Your task to perform on an android device: toggle pop-ups in chrome Image 0: 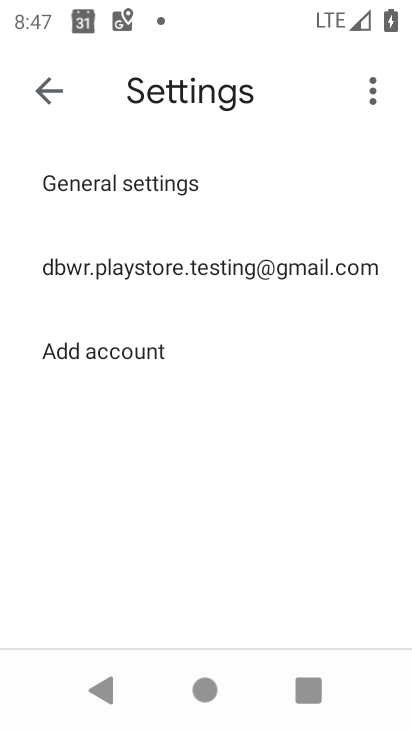
Step 0: press home button
Your task to perform on an android device: toggle pop-ups in chrome Image 1: 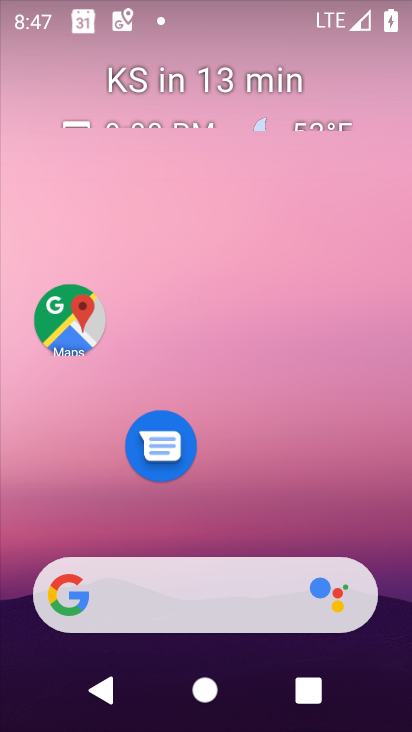
Step 1: drag from (184, 541) to (132, 7)
Your task to perform on an android device: toggle pop-ups in chrome Image 2: 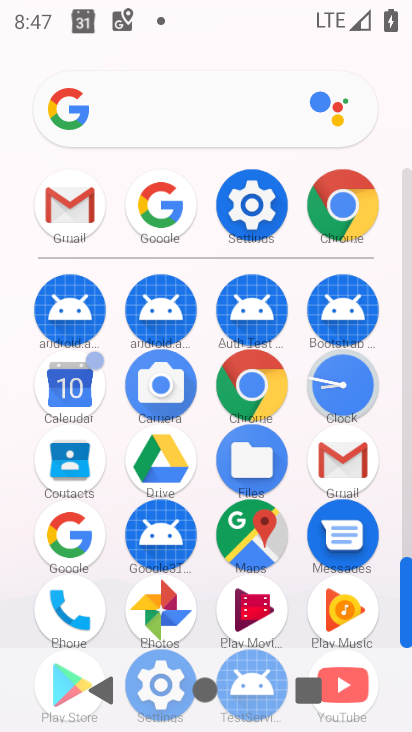
Step 2: click (236, 378)
Your task to perform on an android device: toggle pop-ups in chrome Image 3: 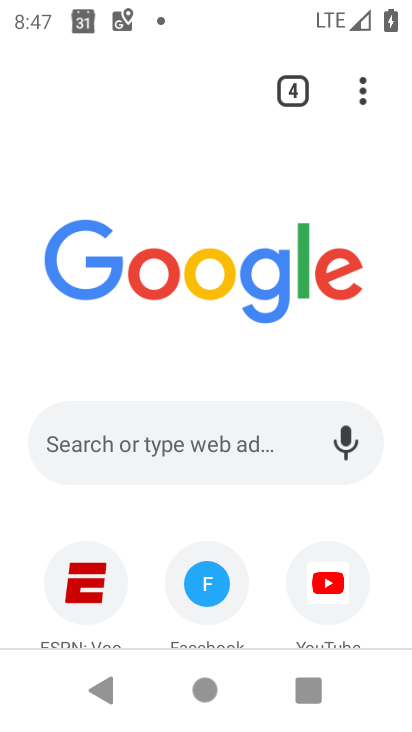
Step 3: click (355, 112)
Your task to perform on an android device: toggle pop-ups in chrome Image 4: 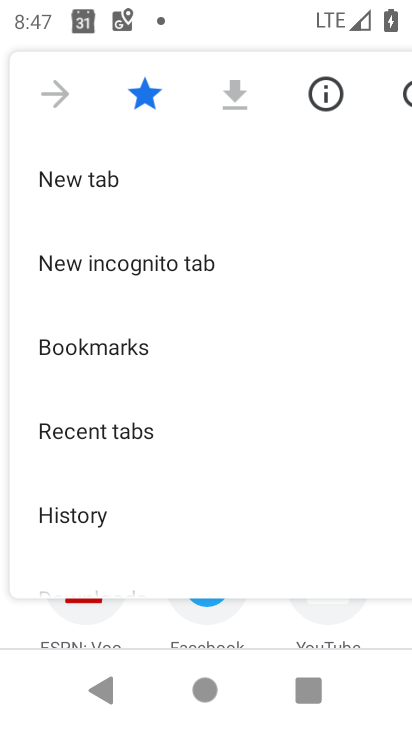
Step 4: drag from (245, 470) to (219, 118)
Your task to perform on an android device: toggle pop-ups in chrome Image 5: 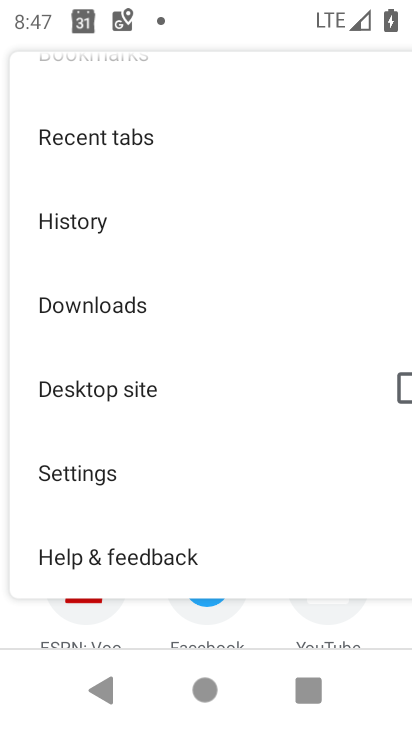
Step 5: click (93, 472)
Your task to perform on an android device: toggle pop-ups in chrome Image 6: 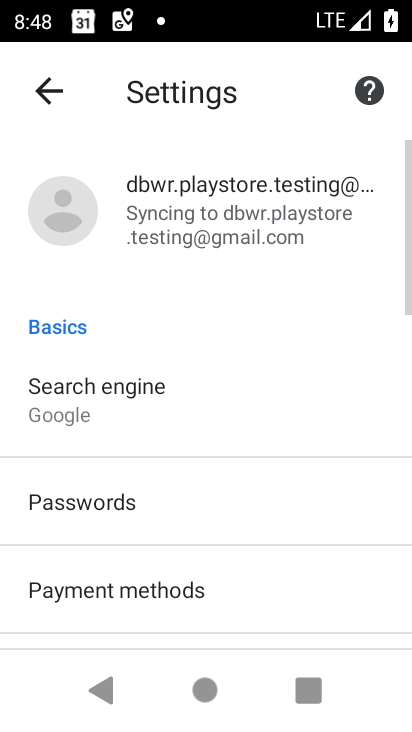
Step 6: drag from (141, 538) to (135, 152)
Your task to perform on an android device: toggle pop-ups in chrome Image 7: 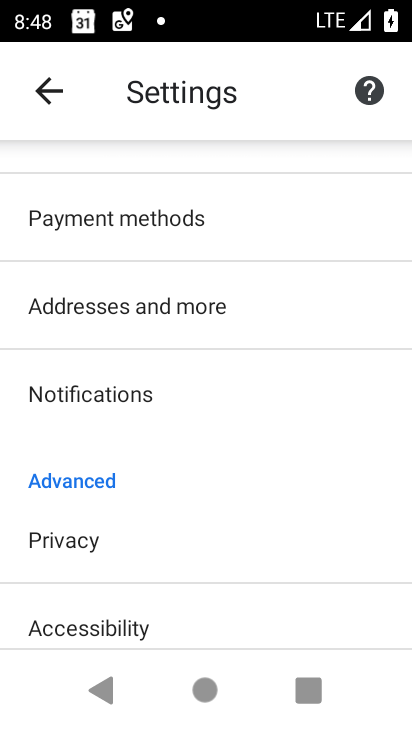
Step 7: drag from (155, 561) to (139, 193)
Your task to perform on an android device: toggle pop-ups in chrome Image 8: 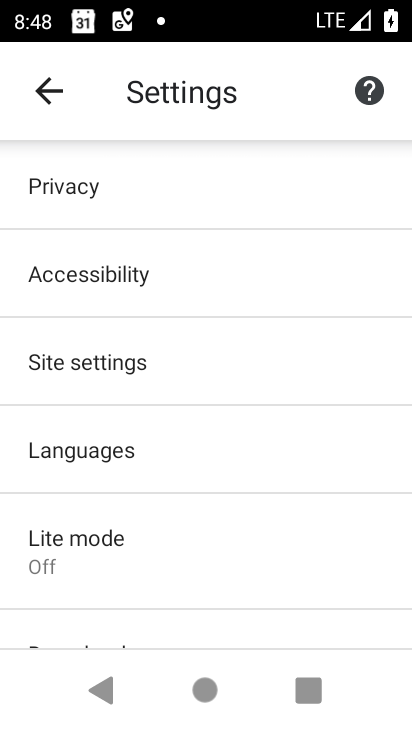
Step 8: click (104, 363)
Your task to perform on an android device: toggle pop-ups in chrome Image 9: 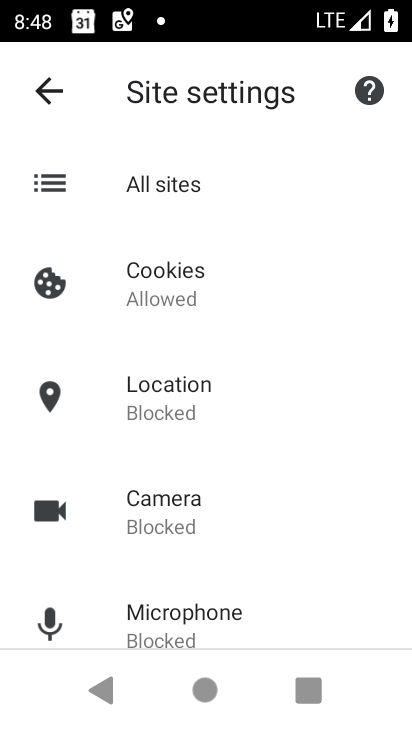
Step 9: drag from (210, 597) to (195, 211)
Your task to perform on an android device: toggle pop-ups in chrome Image 10: 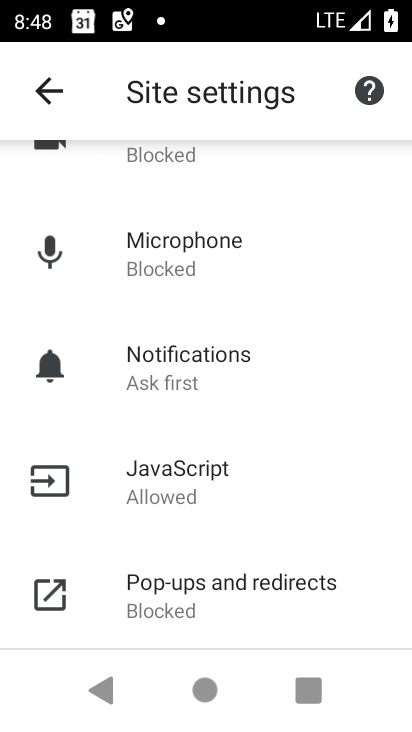
Step 10: click (157, 582)
Your task to perform on an android device: toggle pop-ups in chrome Image 11: 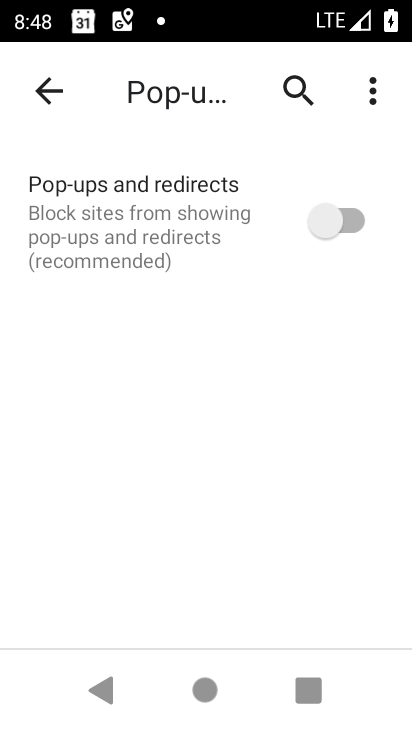
Step 11: click (316, 226)
Your task to perform on an android device: toggle pop-ups in chrome Image 12: 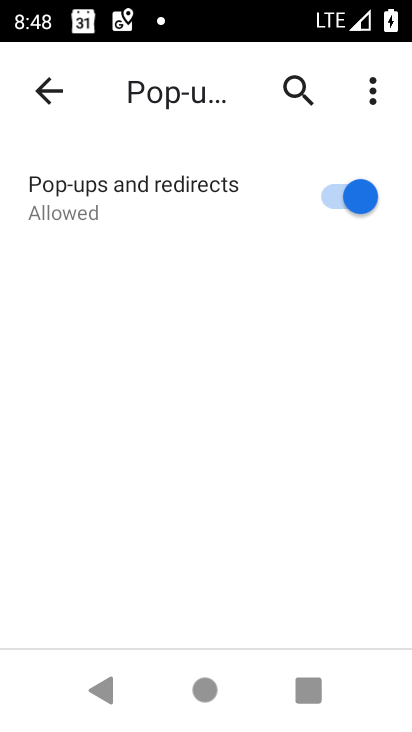
Step 12: task complete